Your task to perform on an android device: Search for "dell xps" on target.com, select the first entry, add it to the cart, then select checkout. Image 0: 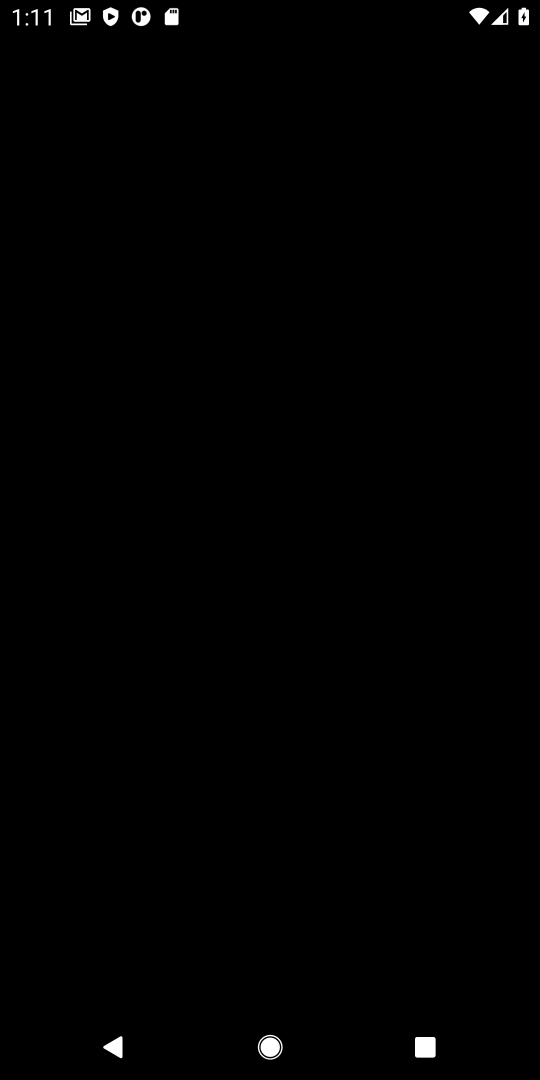
Step 0: press home button
Your task to perform on an android device: Search for "dell xps" on target.com, select the first entry, add it to the cart, then select checkout. Image 1: 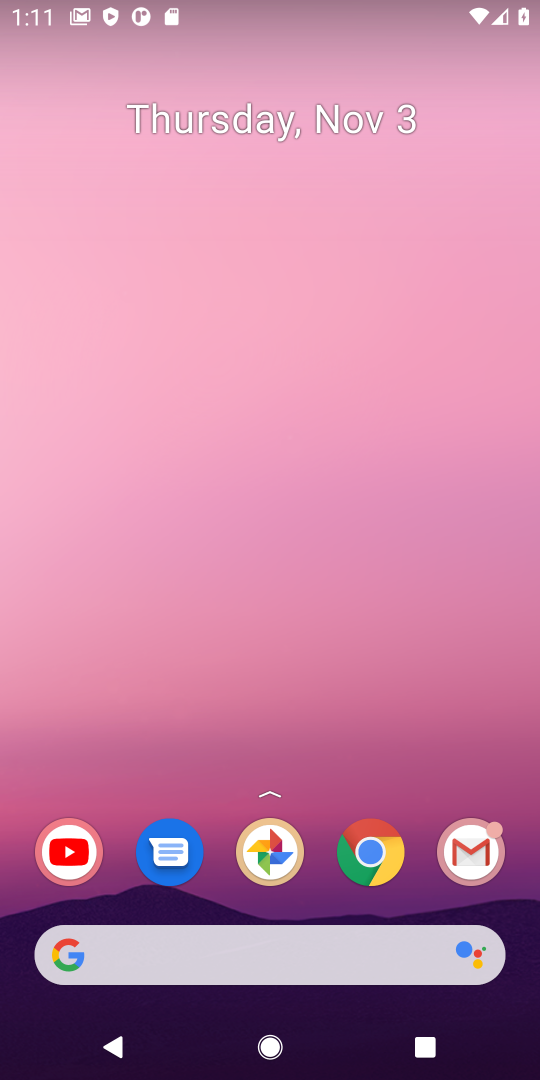
Step 1: click (366, 856)
Your task to perform on an android device: Search for "dell xps" on target.com, select the first entry, add it to the cart, then select checkout. Image 2: 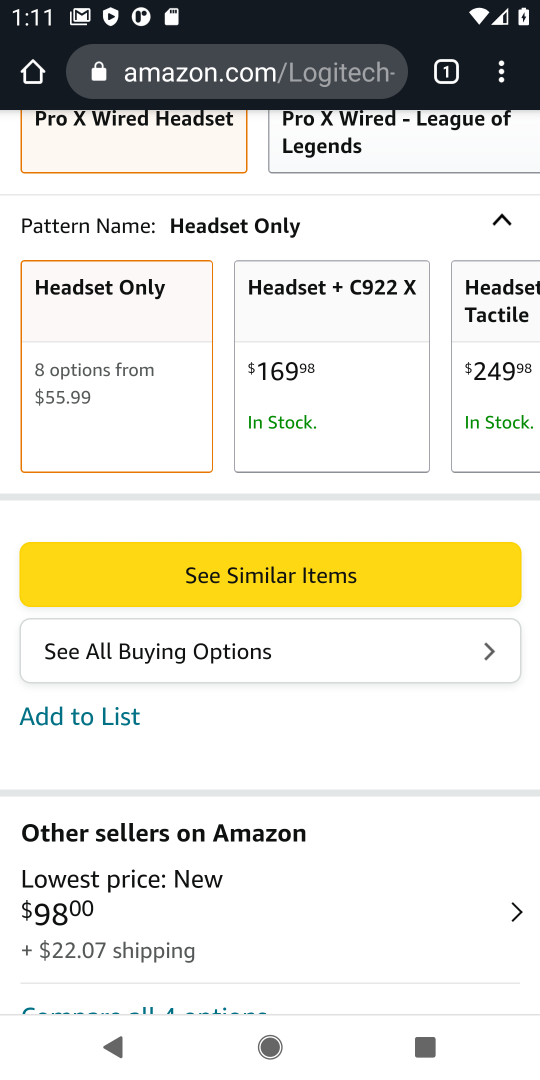
Step 2: click (265, 75)
Your task to perform on an android device: Search for "dell xps" on target.com, select the first entry, add it to the cart, then select checkout. Image 3: 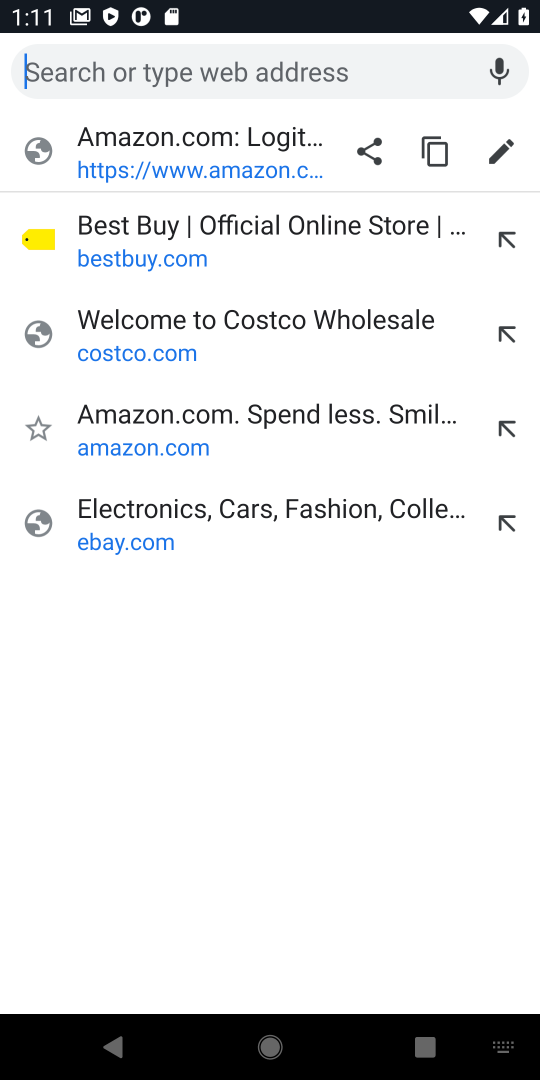
Step 3: type "target.com"
Your task to perform on an android device: Search for "dell xps" on target.com, select the first entry, add it to the cart, then select checkout. Image 4: 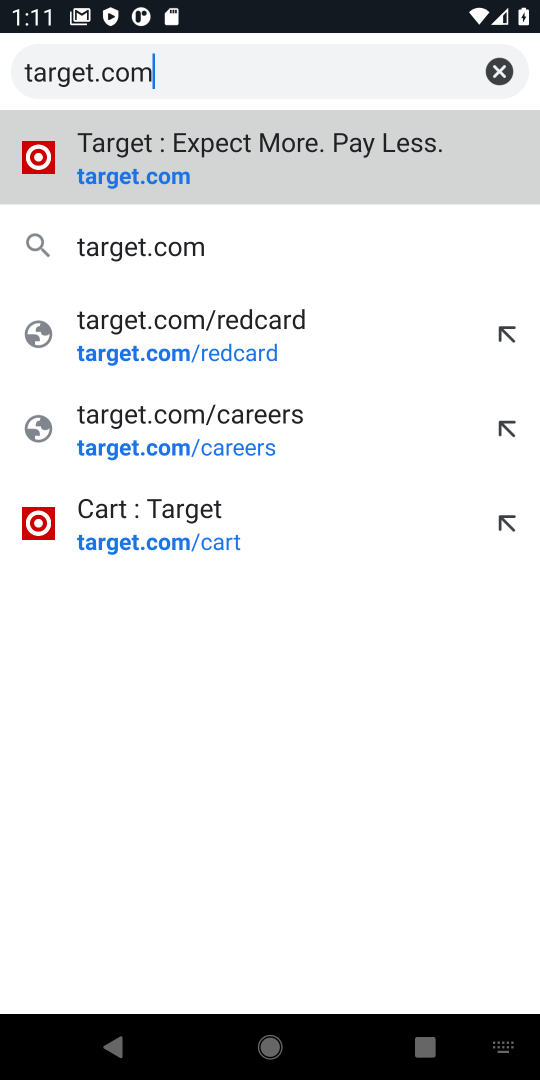
Step 4: click (135, 185)
Your task to perform on an android device: Search for "dell xps" on target.com, select the first entry, add it to the cart, then select checkout. Image 5: 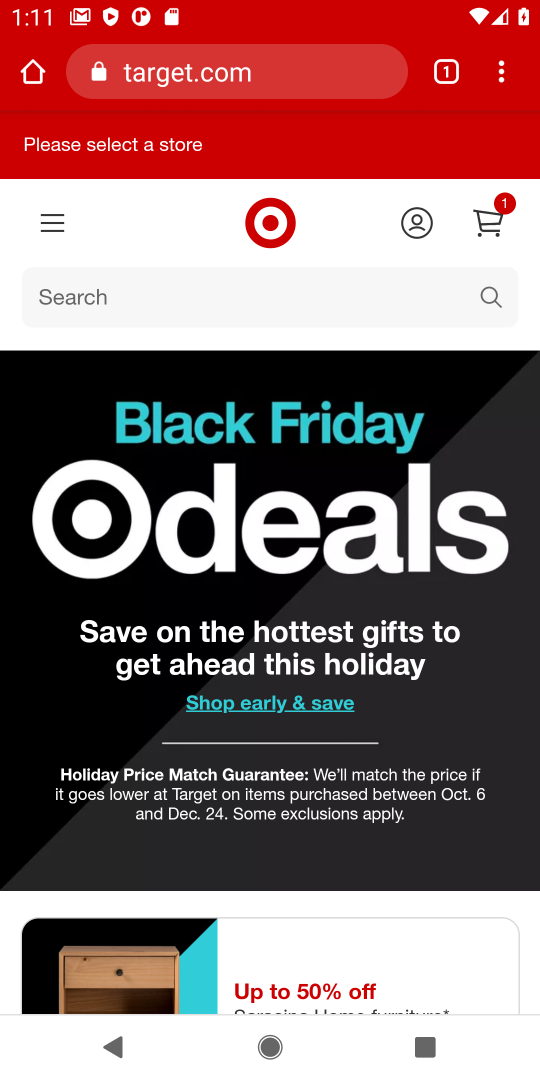
Step 5: click (483, 297)
Your task to perform on an android device: Search for "dell xps" on target.com, select the first entry, add it to the cart, then select checkout. Image 6: 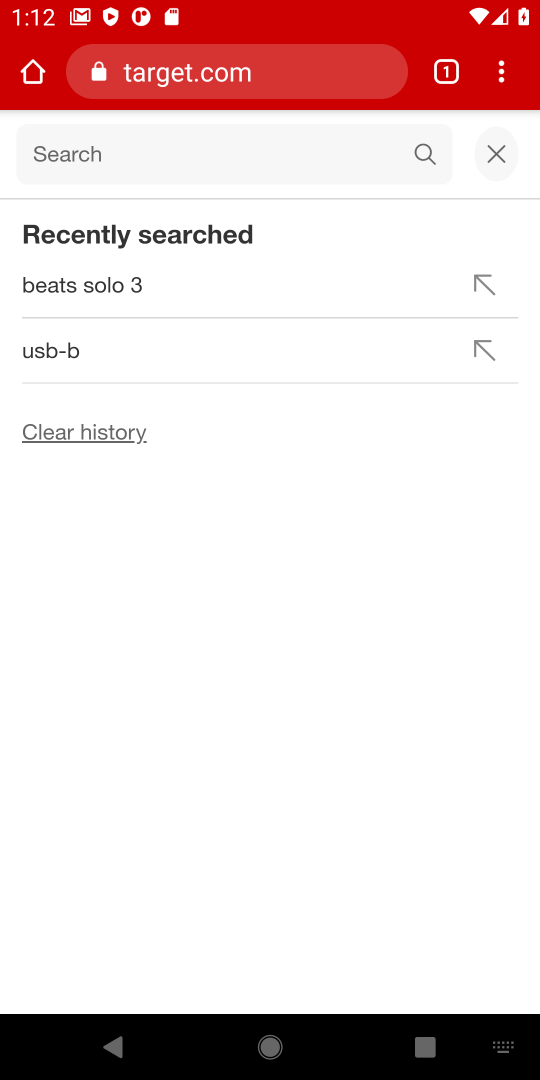
Step 6: type "dell xps"
Your task to perform on an android device: Search for "dell xps" on target.com, select the first entry, add it to the cart, then select checkout. Image 7: 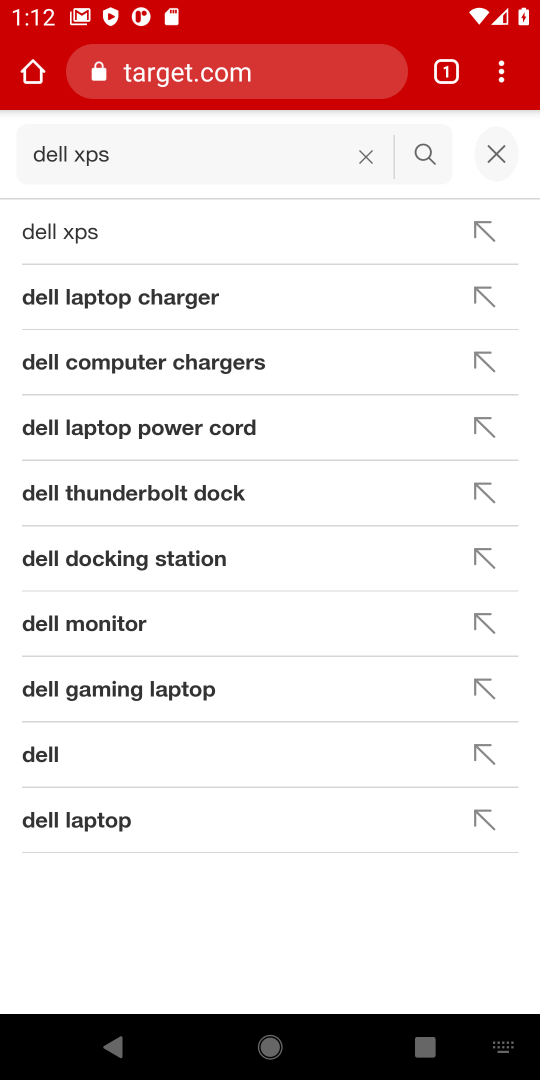
Step 7: click (73, 237)
Your task to perform on an android device: Search for "dell xps" on target.com, select the first entry, add it to the cart, then select checkout. Image 8: 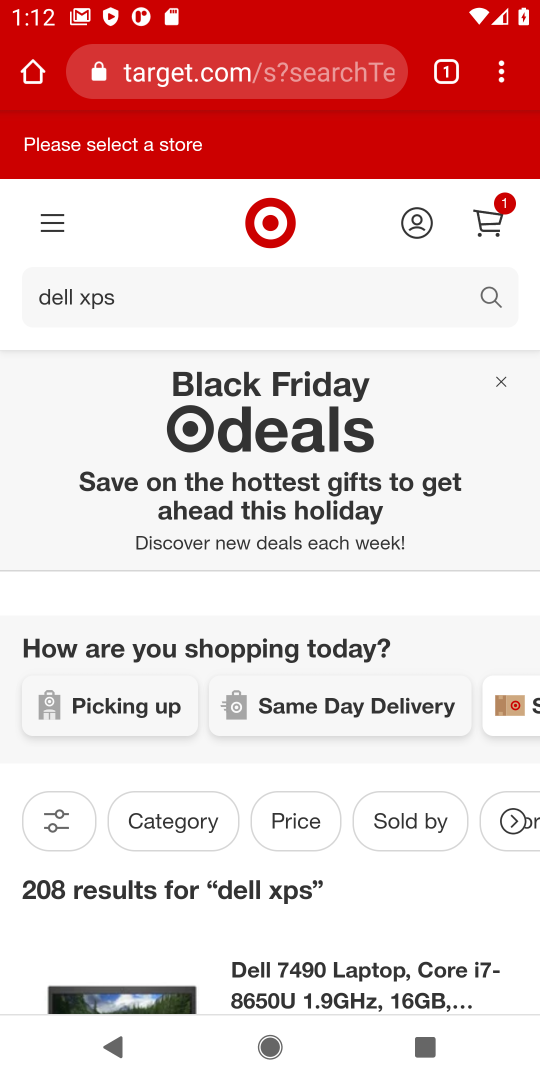
Step 8: drag from (257, 713) to (265, 254)
Your task to perform on an android device: Search for "dell xps" on target.com, select the first entry, add it to the cart, then select checkout. Image 9: 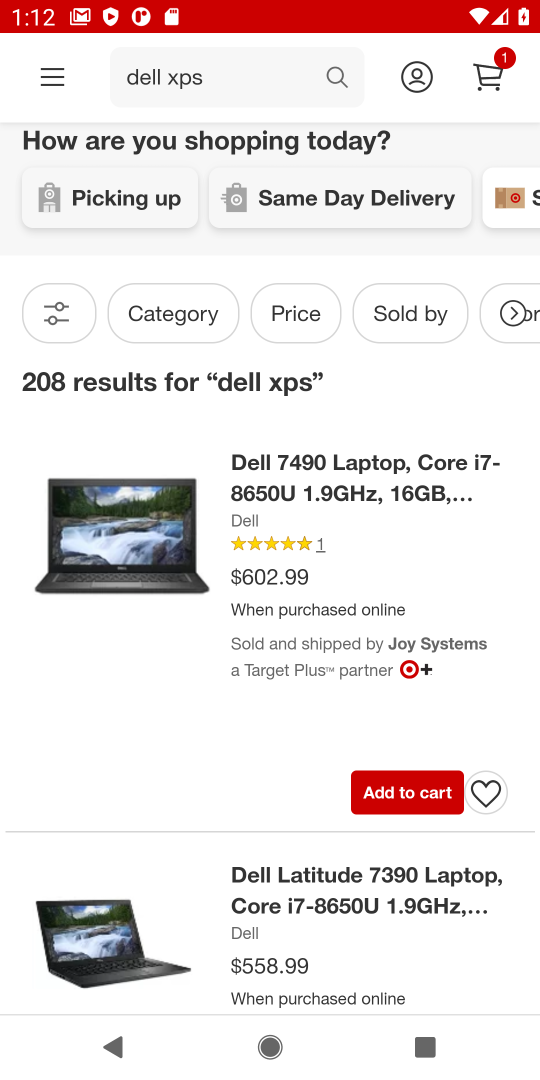
Step 9: click (143, 574)
Your task to perform on an android device: Search for "dell xps" on target.com, select the first entry, add it to the cart, then select checkout. Image 10: 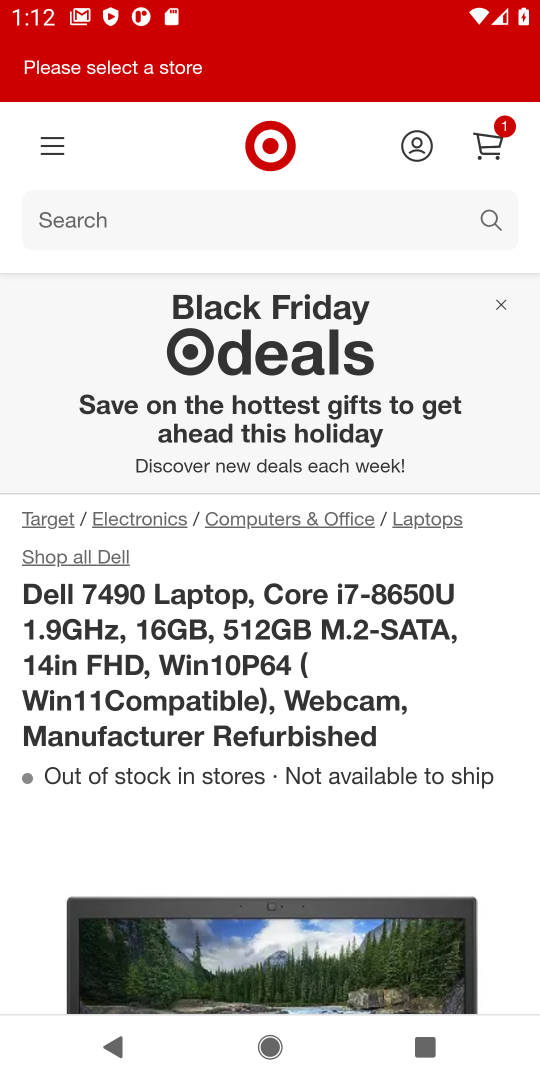
Step 10: task complete